Your task to perform on an android device: Search for a nice rug on Crate & Barrel Image 0: 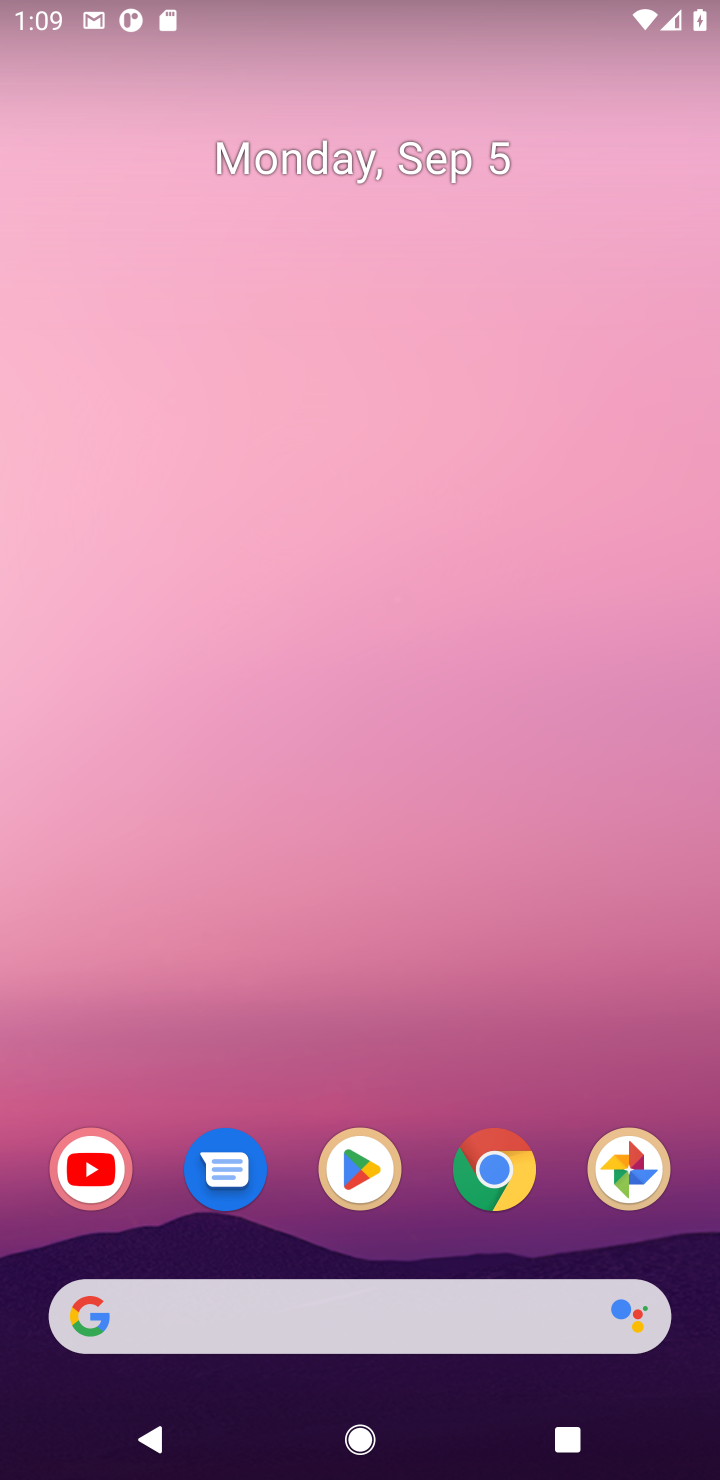
Step 0: click (356, 1159)
Your task to perform on an android device: Search for a nice rug on Crate & Barrel Image 1: 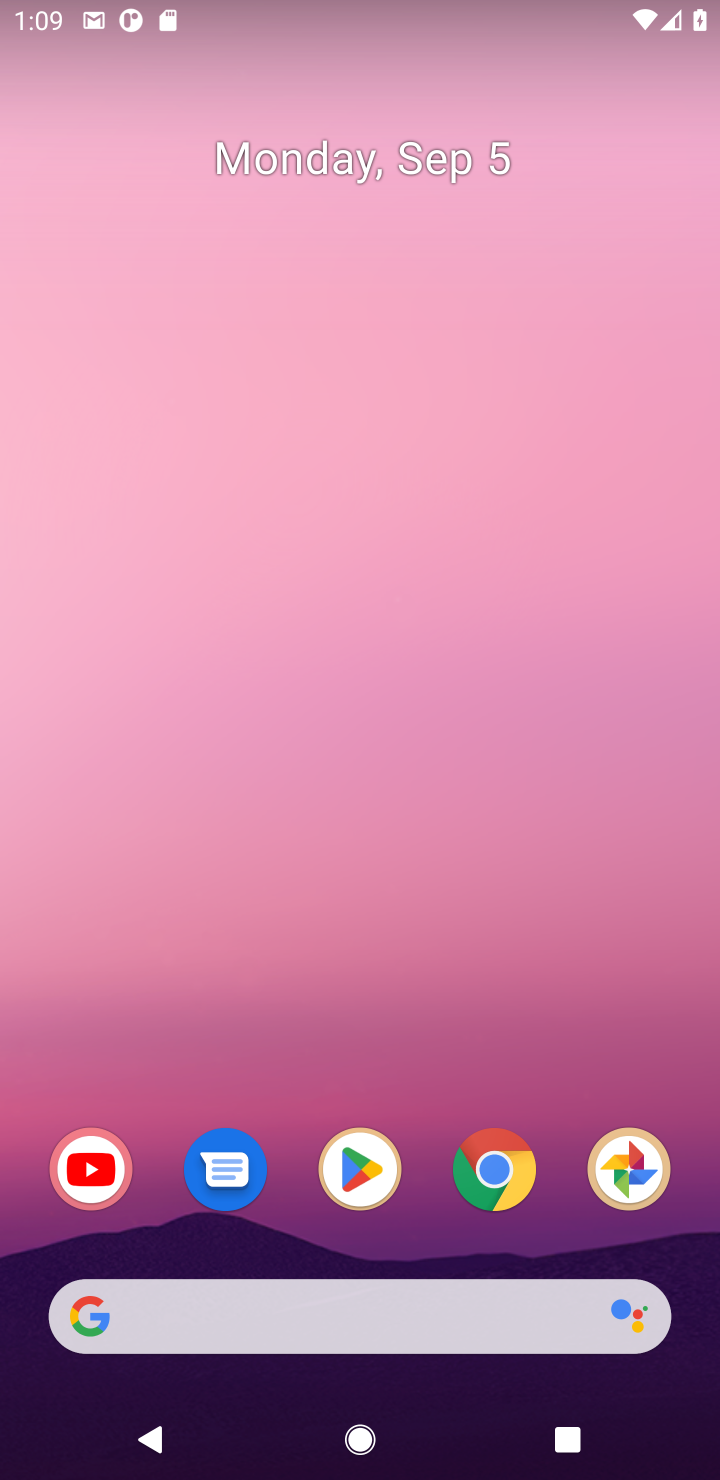
Step 1: task complete